Your task to perform on an android device: open a bookmark in the chrome app Image 0: 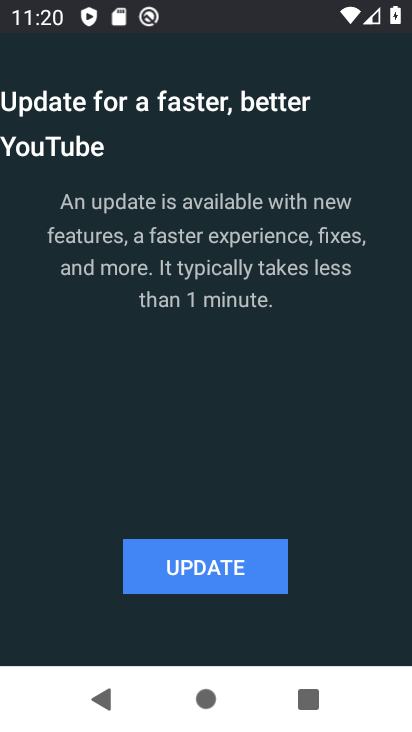
Step 0: press back button
Your task to perform on an android device: open a bookmark in the chrome app Image 1: 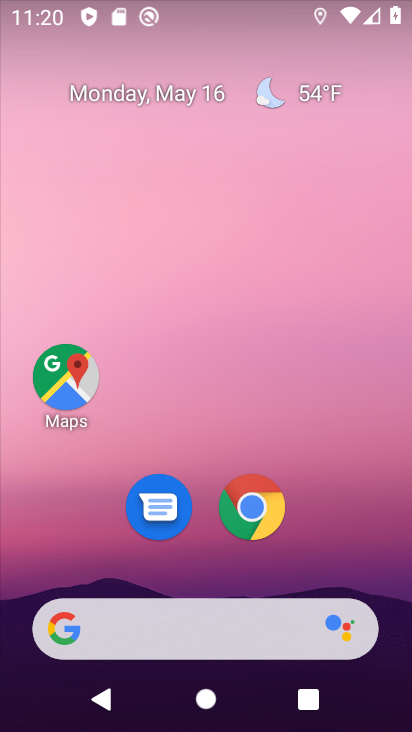
Step 1: click (282, 513)
Your task to perform on an android device: open a bookmark in the chrome app Image 2: 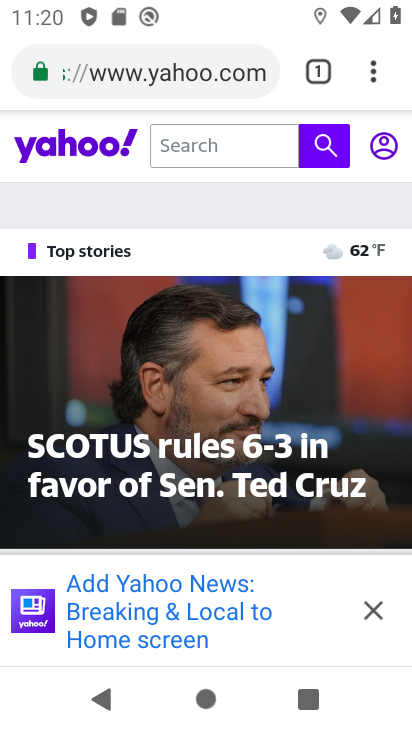
Step 2: click (386, 88)
Your task to perform on an android device: open a bookmark in the chrome app Image 3: 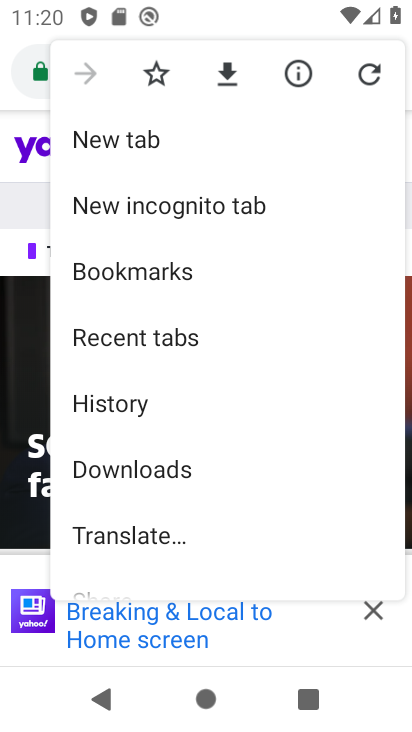
Step 3: click (277, 279)
Your task to perform on an android device: open a bookmark in the chrome app Image 4: 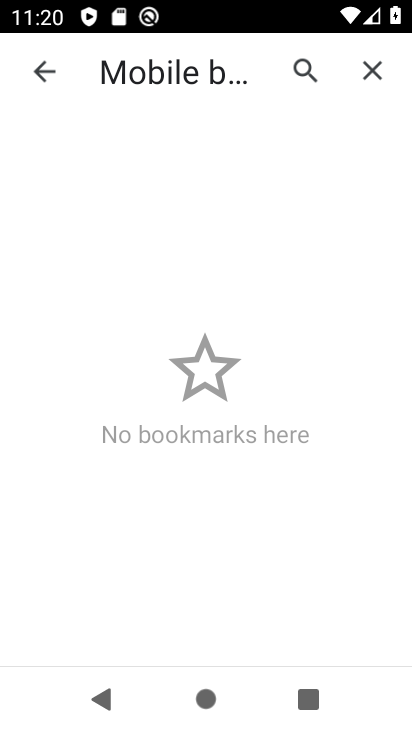
Step 4: task complete